Your task to perform on an android device: delete browsing data in the chrome app Image 0: 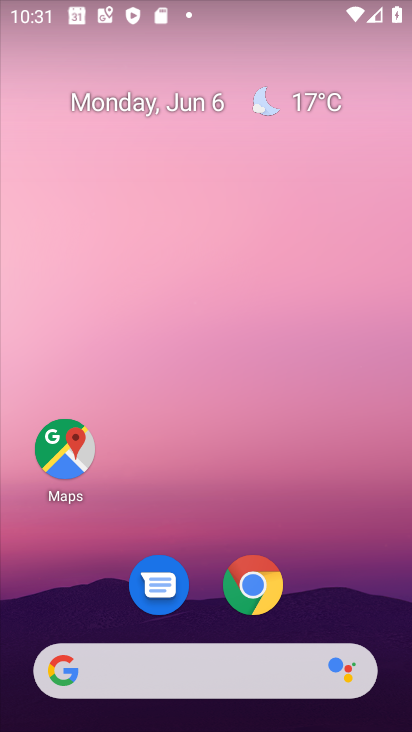
Step 0: click (269, 586)
Your task to perform on an android device: delete browsing data in the chrome app Image 1: 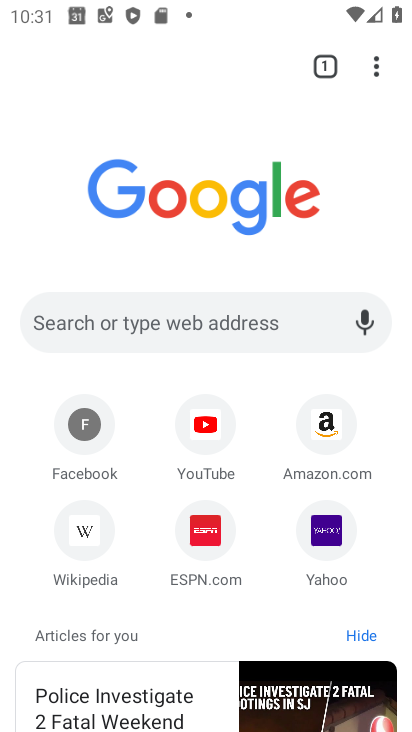
Step 1: click (377, 73)
Your task to perform on an android device: delete browsing data in the chrome app Image 2: 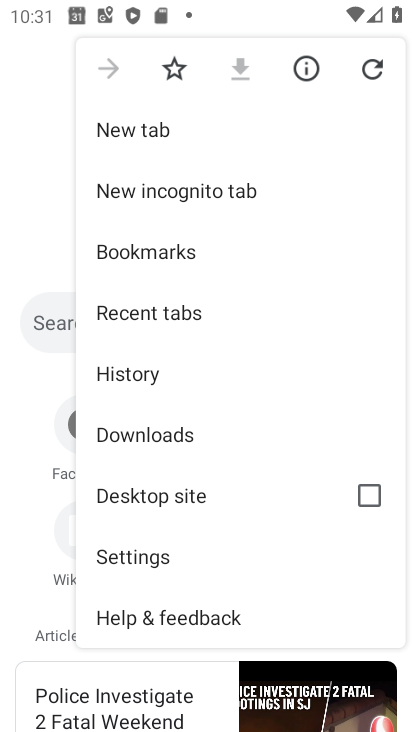
Step 2: click (189, 373)
Your task to perform on an android device: delete browsing data in the chrome app Image 3: 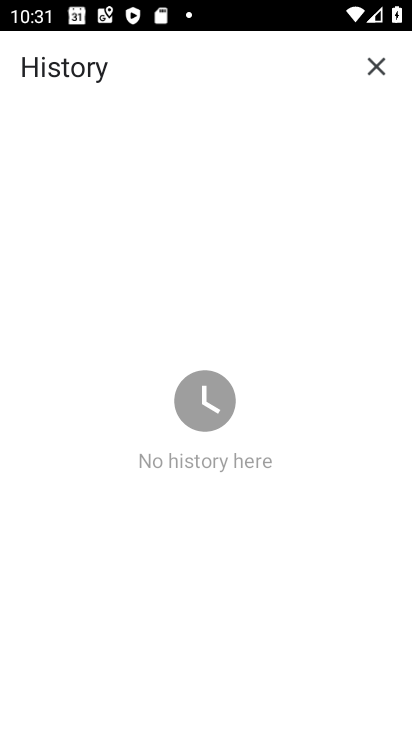
Step 3: task complete